Your task to perform on an android device: open wifi settings Image 0: 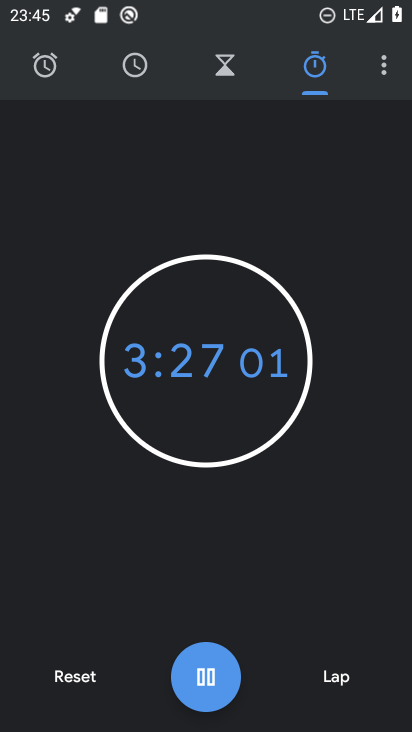
Step 0: press home button
Your task to perform on an android device: open wifi settings Image 1: 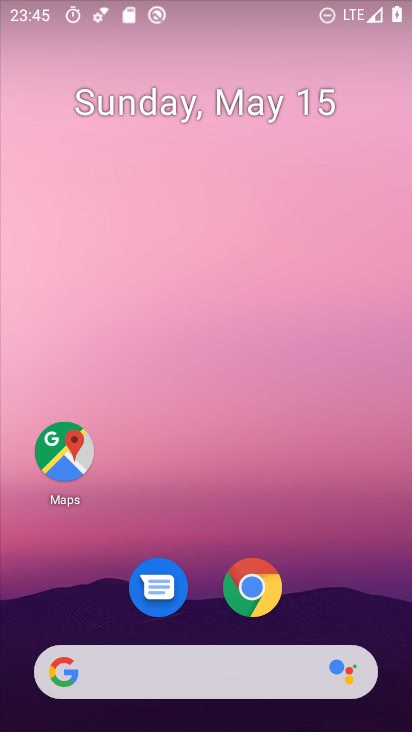
Step 1: drag from (207, 618) to (210, 295)
Your task to perform on an android device: open wifi settings Image 2: 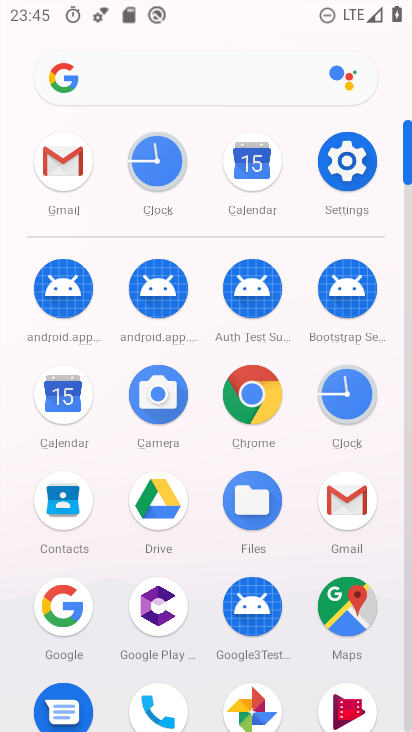
Step 2: click (333, 157)
Your task to perform on an android device: open wifi settings Image 3: 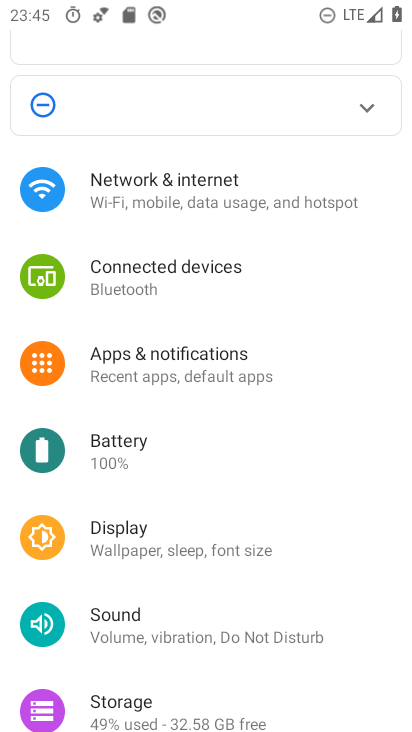
Step 3: click (197, 177)
Your task to perform on an android device: open wifi settings Image 4: 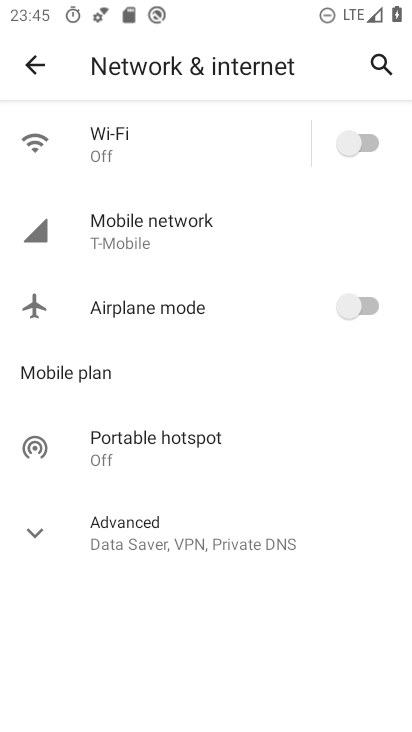
Step 4: click (116, 149)
Your task to perform on an android device: open wifi settings Image 5: 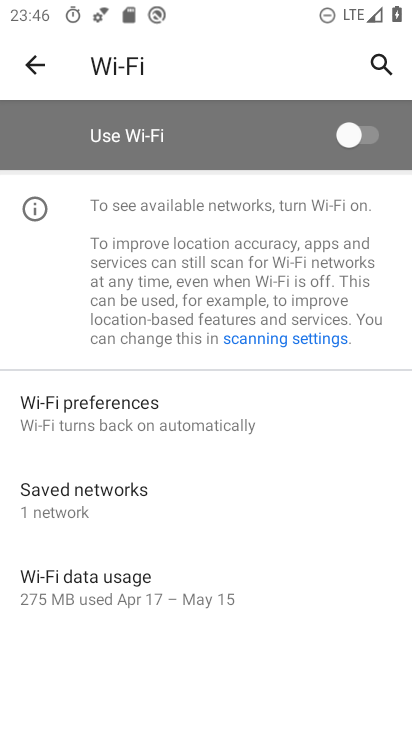
Step 5: task complete